Your task to perform on an android device: find snoozed emails in the gmail app Image 0: 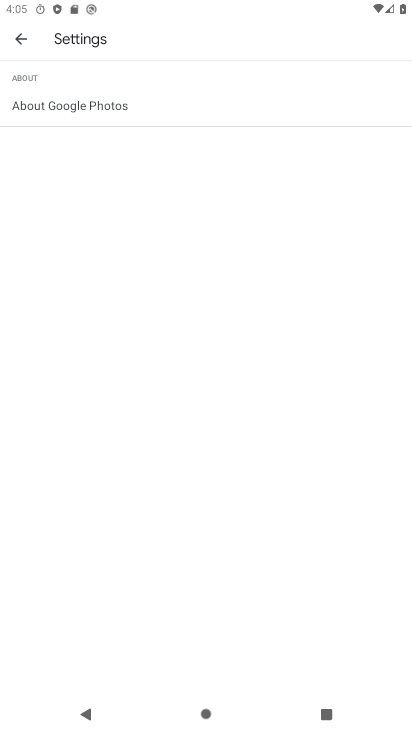
Step 0: press home button
Your task to perform on an android device: find snoozed emails in the gmail app Image 1: 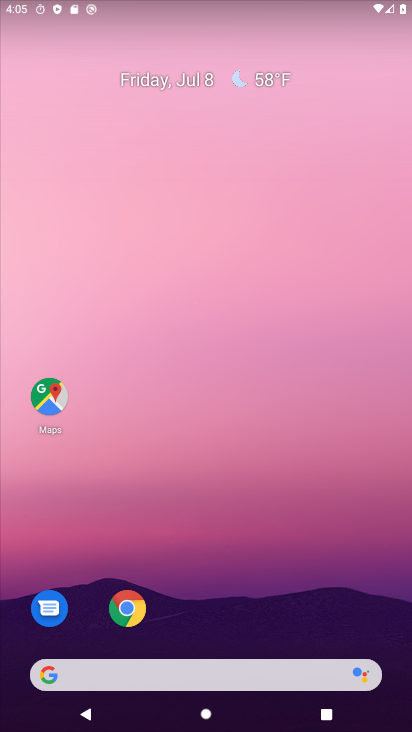
Step 1: drag from (256, 626) to (261, 391)
Your task to perform on an android device: find snoozed emails in the gmail app Image 2: 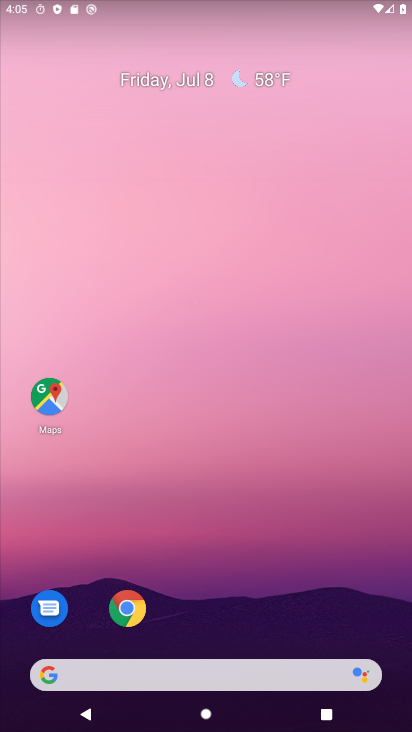
Step 2: drag from (269, 562) to (310, 61)
Your task to perform on an android device: find snoozed emails in the gmail app Image 3: 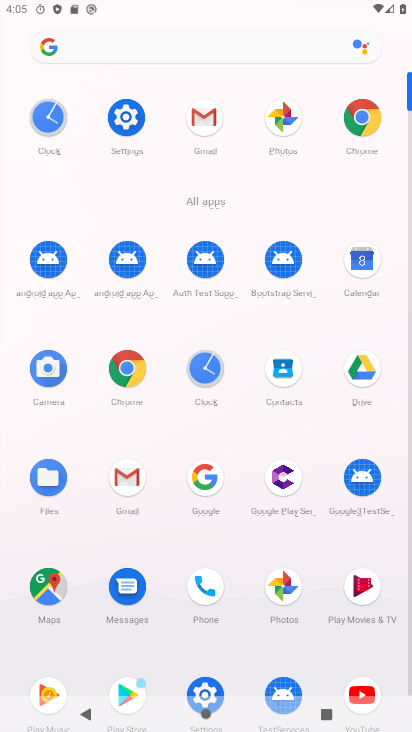
Step 3: click (202, 107)
Your task to perform on an android device: find snoozed emails in the gmail app Image 4: 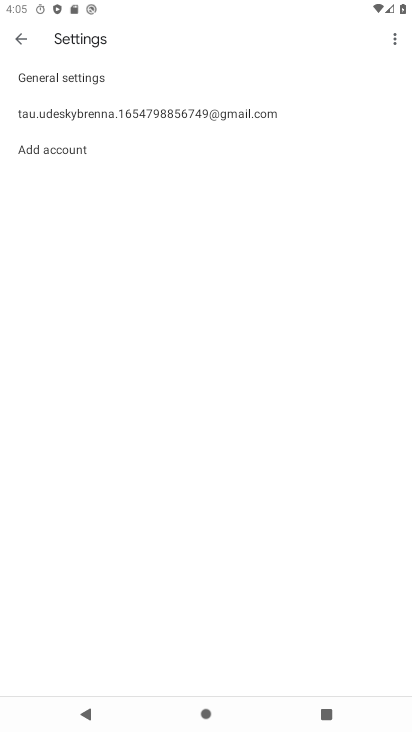
Step 4: click (21, 32)
Your task to perform on an android device: find snoozed emails in the gmail app Image 5: 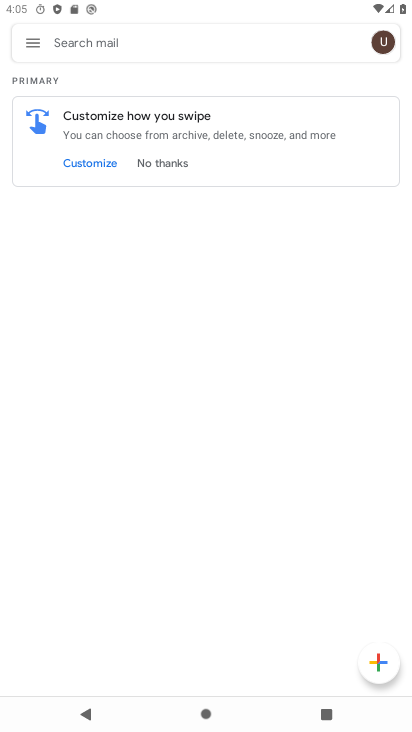
Step 5: click (32, 45)
Your task to perform on an android device: find snoozed emails in the gmail app Image 6: 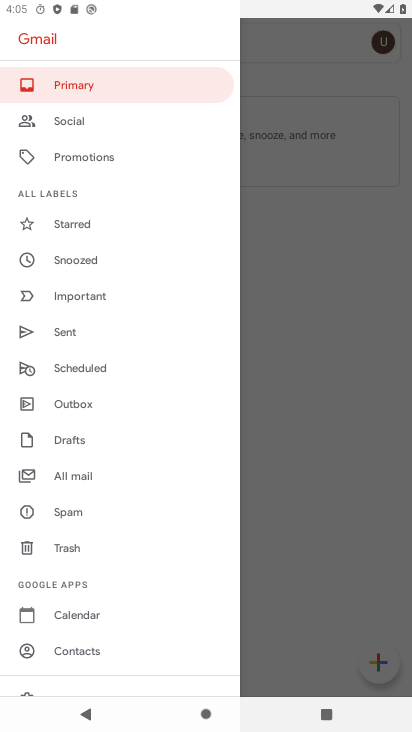
Step 6: click (88, 254)
Your task to perform on an android device: find snoozed emails in the gmail app Image 7: 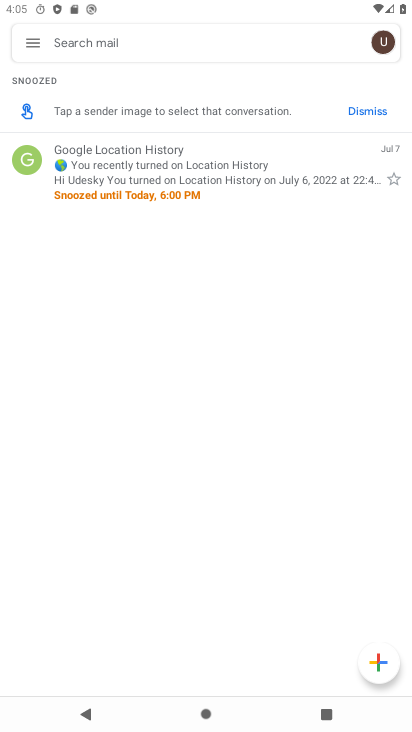
Step 7: task complete